Your task to perform on an android device: Open Wikipedia Image 0: 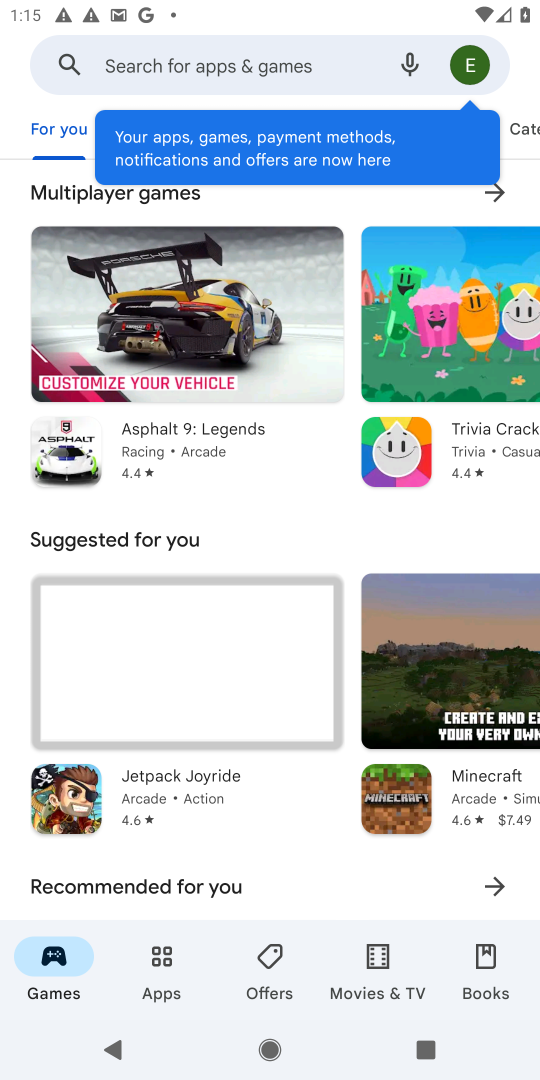
Step 0: press home button
Your task to perform on an android device: Open Wikipedia Image 1: 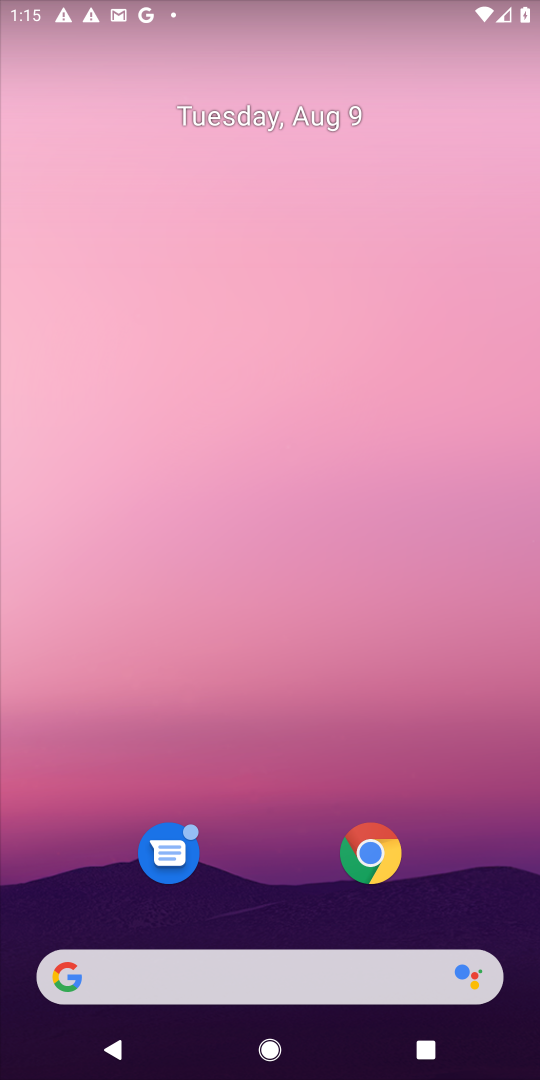
Step 1: drag from (274, 889) to (417, 124)
Your task to perform on an android device: Open Wikipedia Image 2: 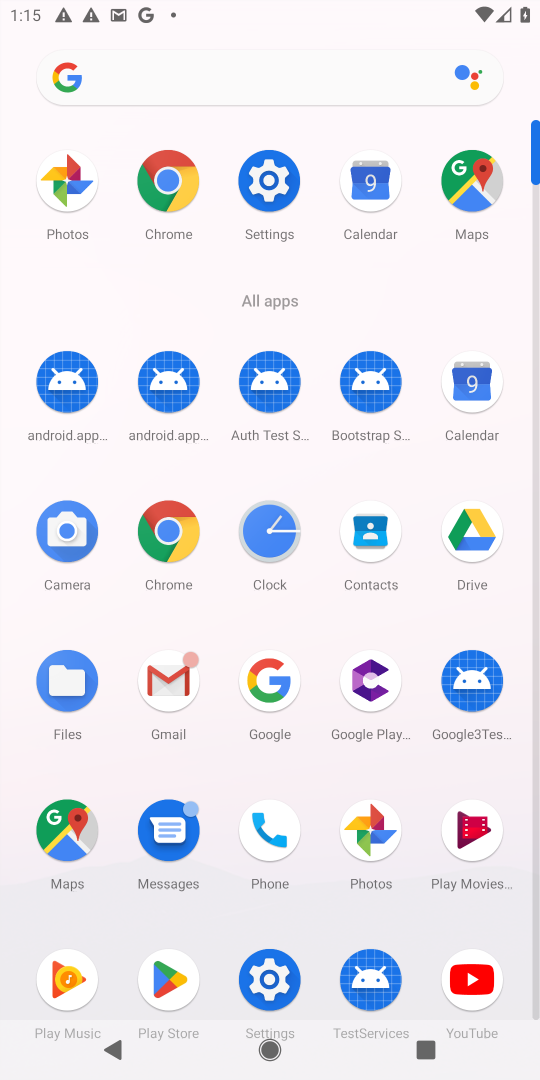
Step 2: click (167, 175)
Your task to perform on an android device: Open Wikipedia Image 3: 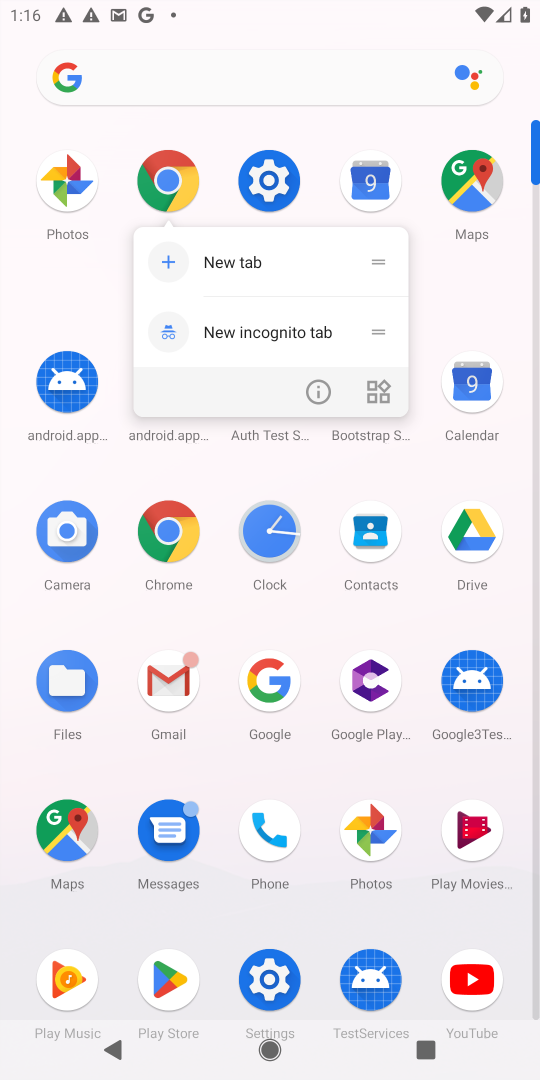
Step 3: click (159, 171)
Your task to perform on an android device: Open Wikipedia Image 4: 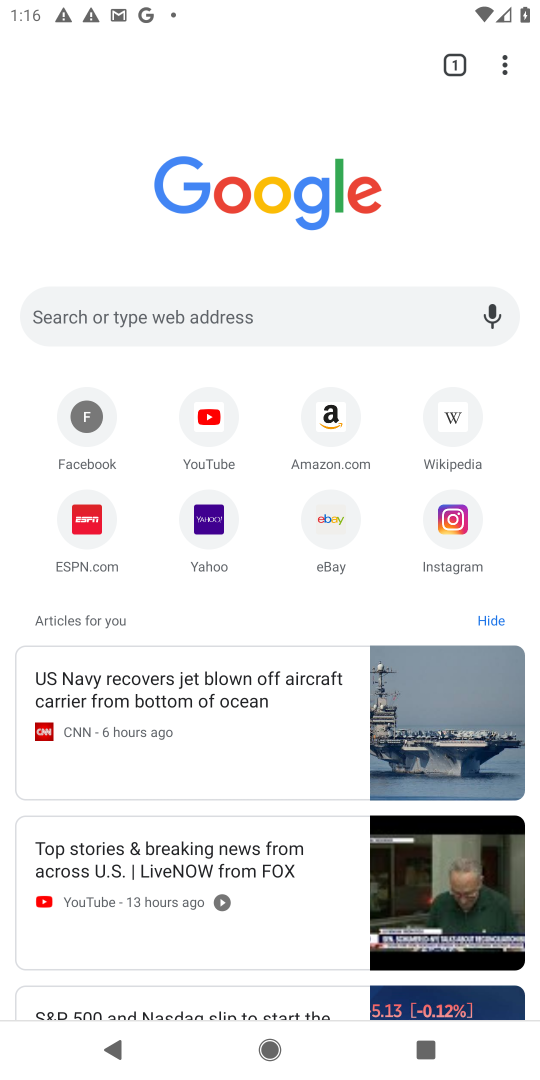
Step 4: click (455, 409)
Your task to perform on an android device: Open Wikipedia Image 5: 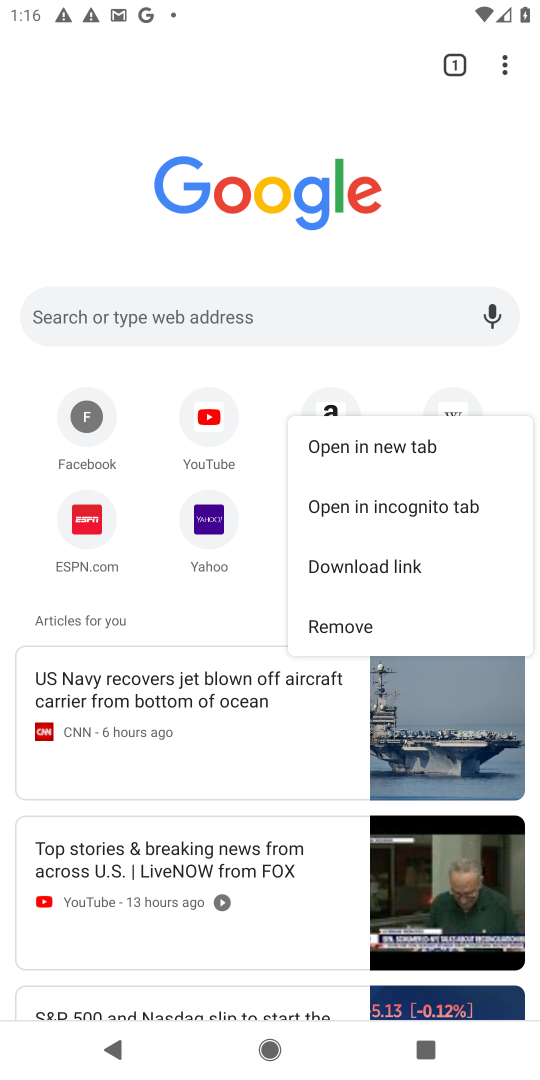
Step 5: click (219, 600)
Your task to perform on an android device: Open Wikipedia Image 6: 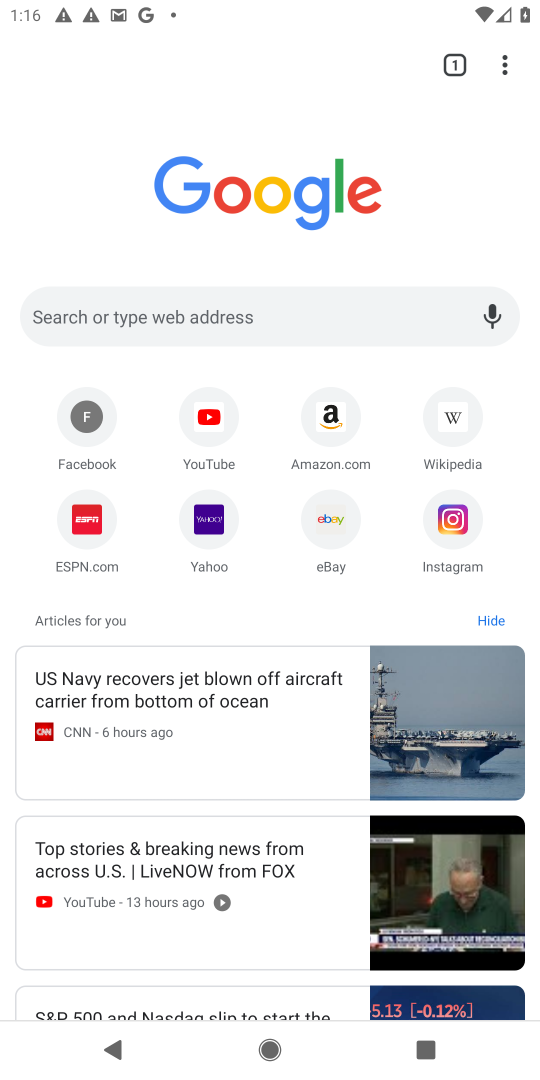
Step 6: click (463, 427)
Your task to perform on an android device: Open Wikipedia Image 7: 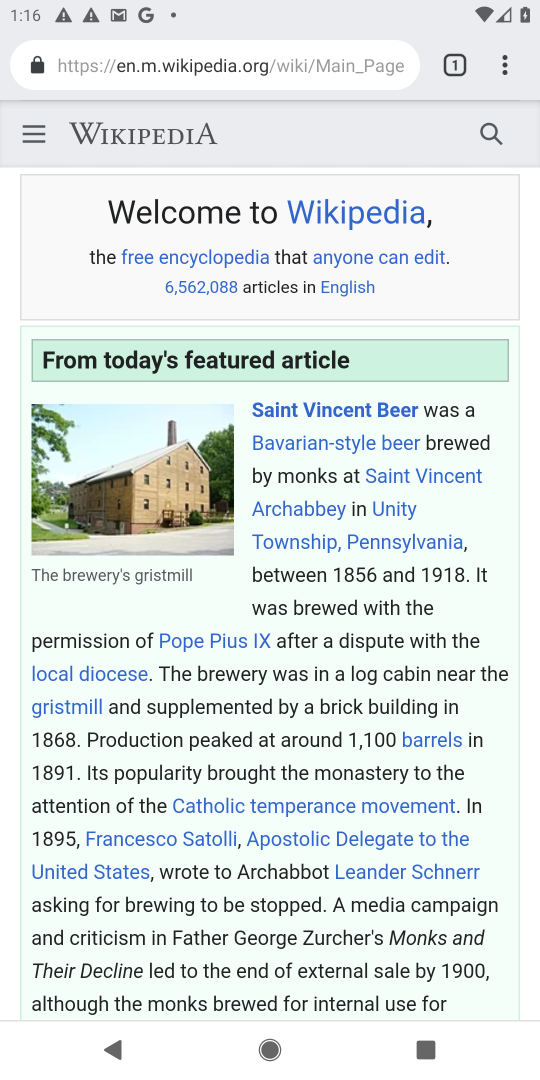
Step 7: task complete